Your task to perform on an android device: Open the Play Movies app and select the watchlist tab. Image 0: 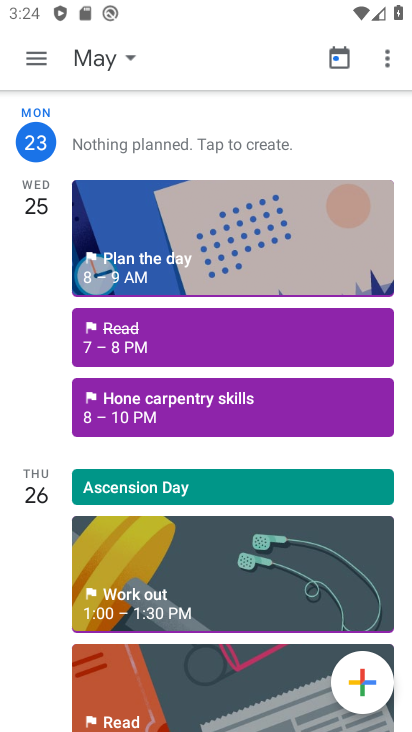
Step 0: press home button
Your task to perform on an android device: Open the Play Movies app and select the watchlist tab. Image 1: 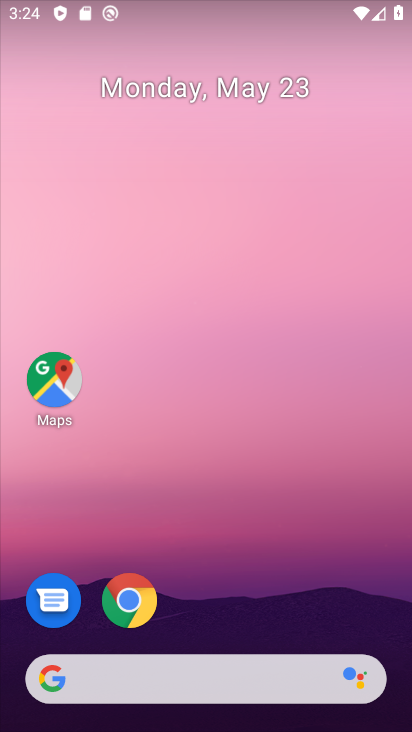
Step 1: drag from (261, 619) to (291, 5)
Your task to perform on an android device: Open the Play Movies app and select the watchlist tab. Image 2: 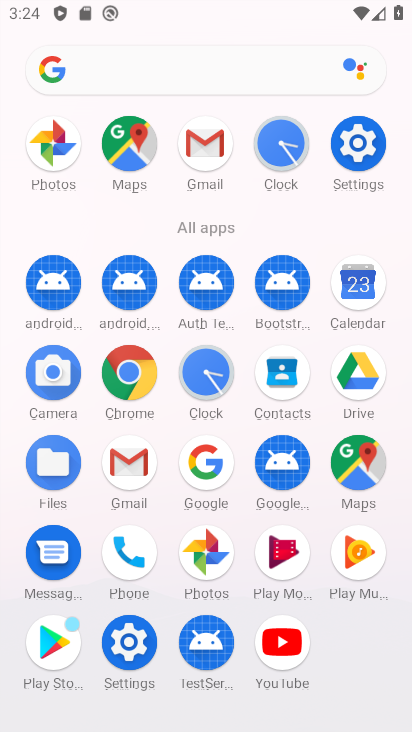
Step 2: click (279, 561)
Your task to perform on an android device: Open the Play Movies app and select the watchlist tab. Image 3: 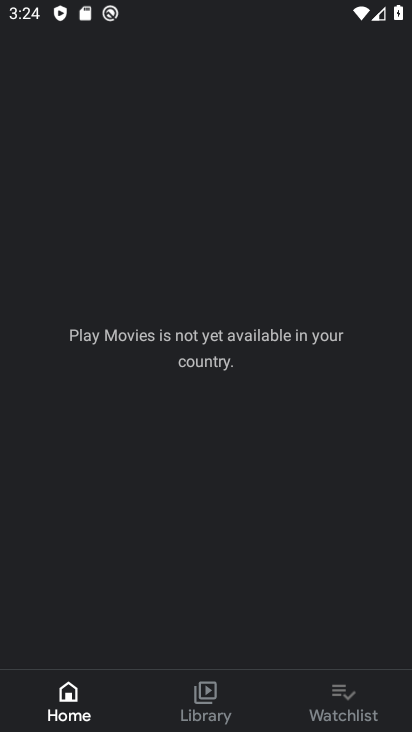
Step 3: click (345, 712)
Your task to perform on an android device: Open the Play Movies app and select the watchlist tab. Image 4: 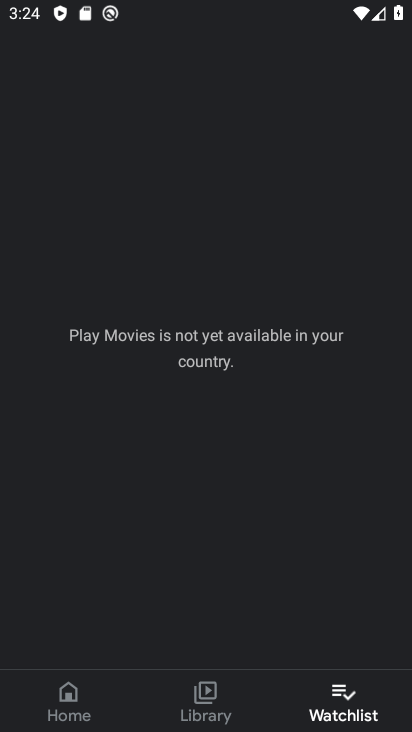
Step 4: task complete